Your task to perform on an android device: Open Chrome and go to settings Image 0: 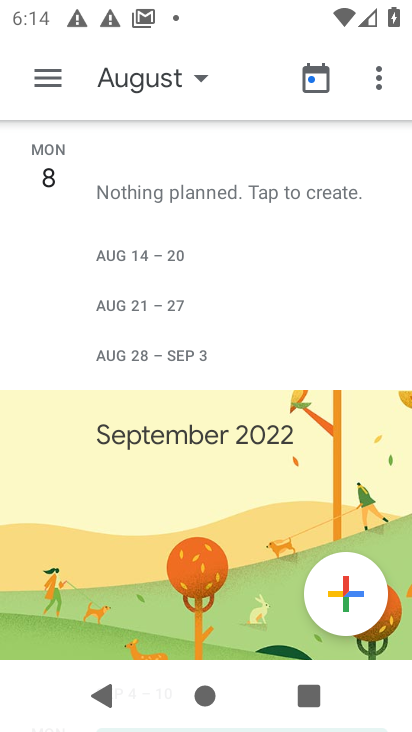
Step 0: press back button
Your task to perform on an android device: Open Chrome and go to settings Image 1: 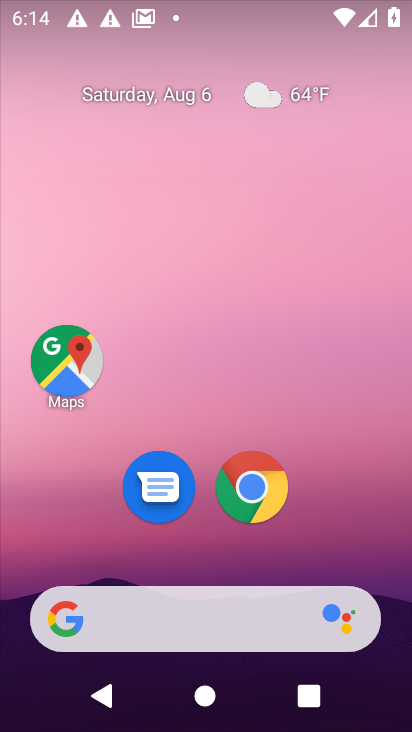
Step 1: click (252, 480)
Your task to perform on an android device: Open Chrome and go to settings Image 2: 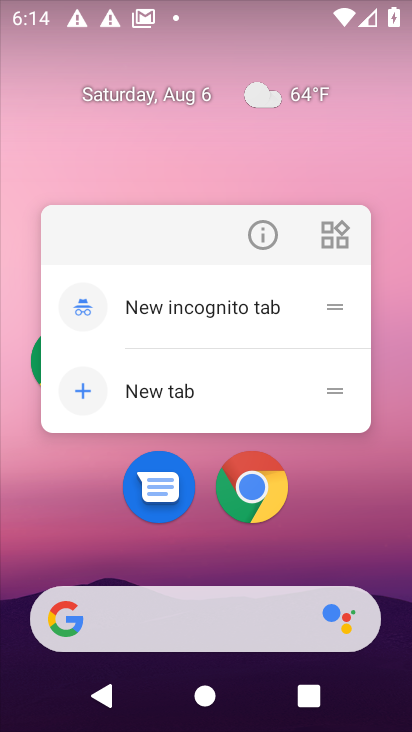
Step 2: click (244, 481)
Your task to perform on an android device: Open Chrome and go to settings Image 3: 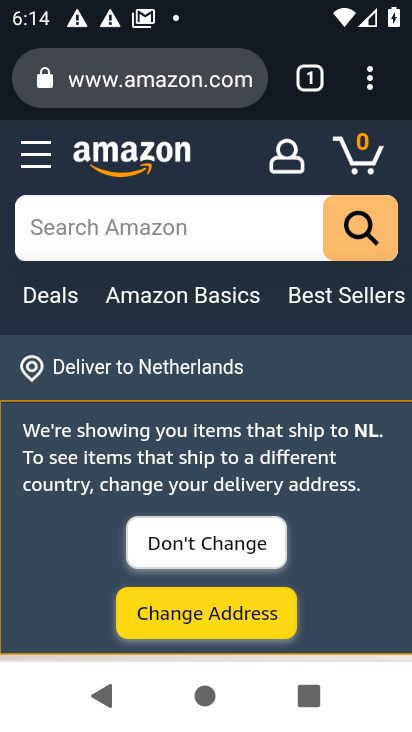
Step 3: task complete